Your task to perform on an android device: Search for sushi restaurants on Maps Image 0: 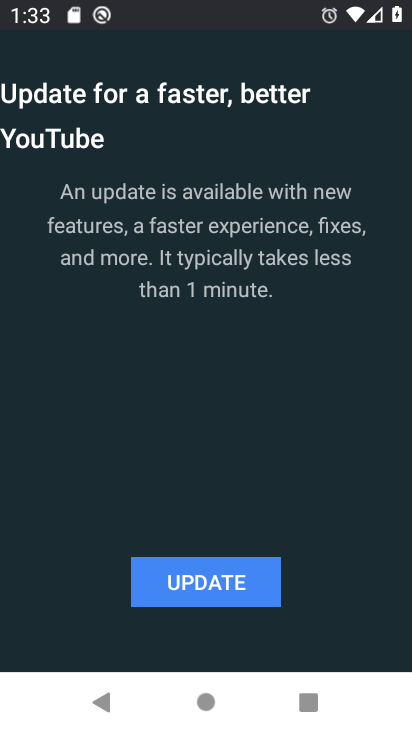
Step 0: press home button
Your task to perform on an android device: Search for sushi restaurants on Maps Image 1: 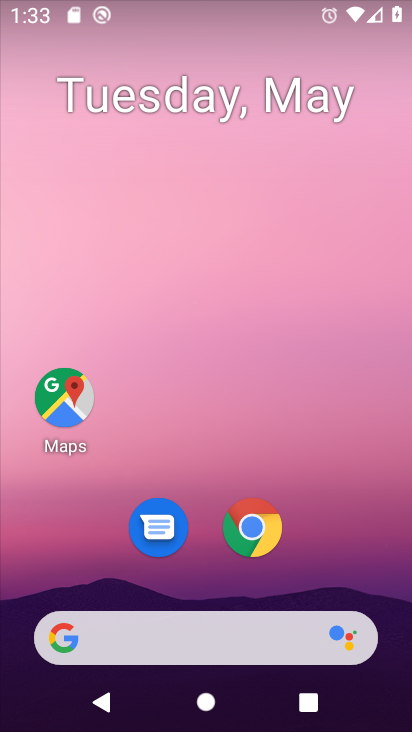
Step 1: click (59, 397)
Your task to perform on an android device: Search for sushi restaurants on Maps Image 2: 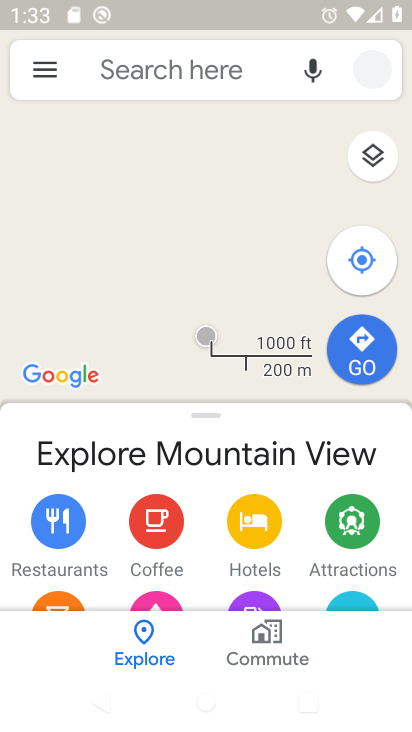
Step 2: click (197, 78)
Your task to perform on an android device: Search for sushi restaurants on Maps Image 3: 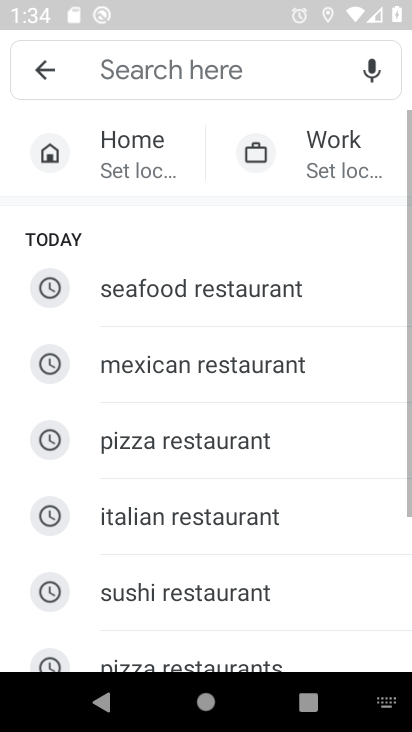
Step 3: click (173, 591)
Your task to perform on an android device: Search for sushi restaurants on Maps Image 4: 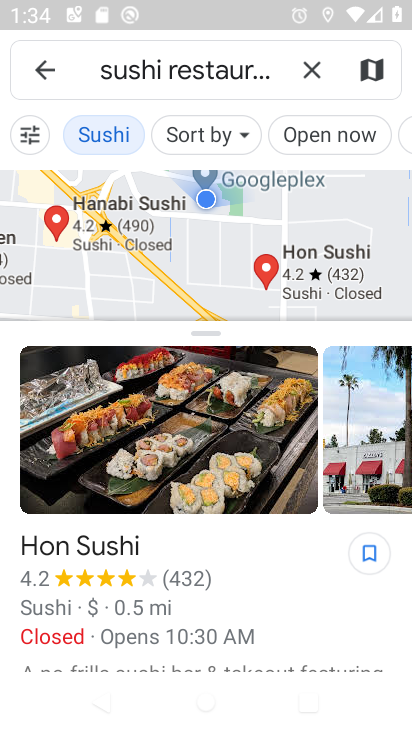
Step 4: task complete